Your task to perform on an android device: Open Maps and search for coffee Image 0: 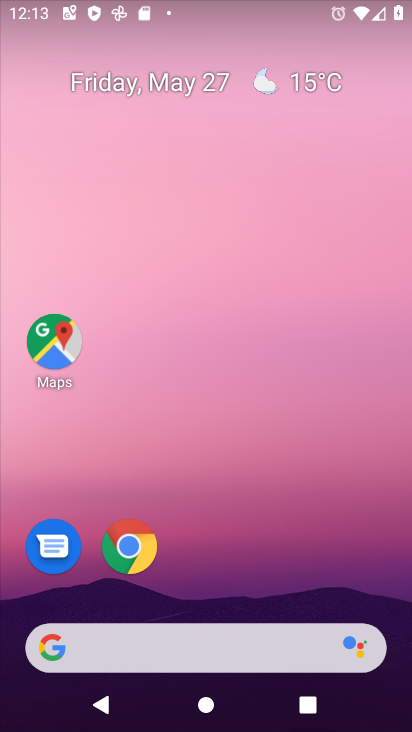
Step 0: click (58, 343)
Your task to perform on an android device: Open Maps and search for coffee Image 1: 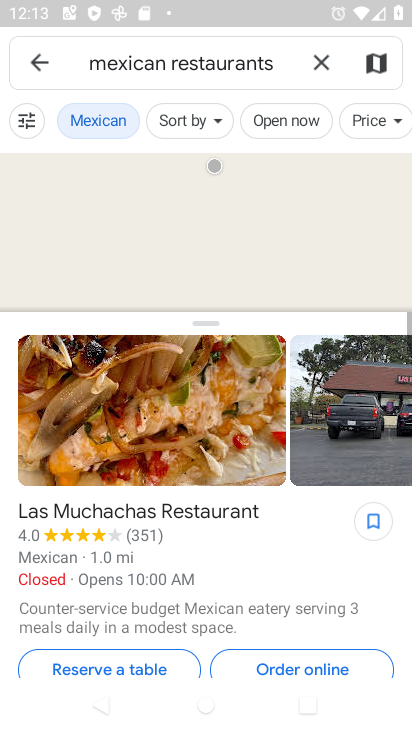
Step 1: click (317, 74)
Your task to perform on an android device: Open Maps and search for coffee Image 2: 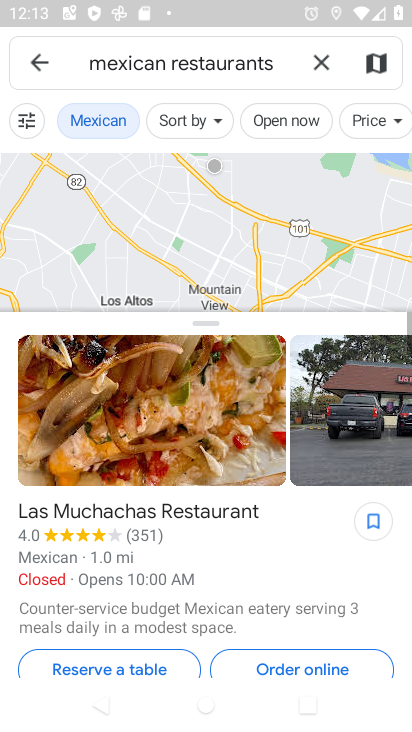
Step 2: click (316, 59)
Your task to perform on an android device: Open Maps and search for coffee Image 3: 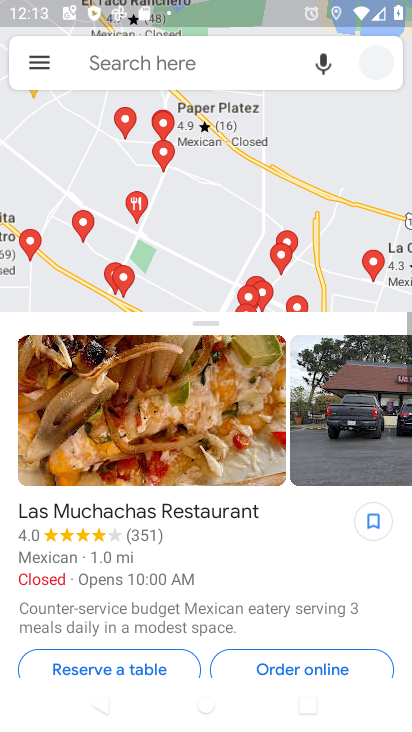
Step 3: click (215, 62)
Your task to perform on an android device: Open Maps and search for coffee Image 4: 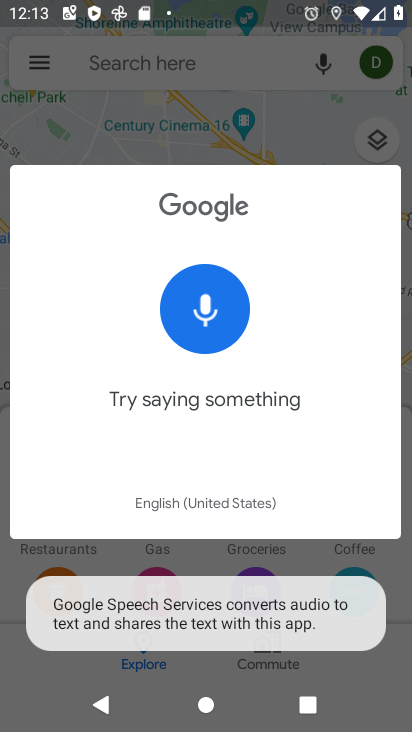
Step 4: click (196, 89)
Your task to perform on an android device: Open Maps and search for coffee Image 5: 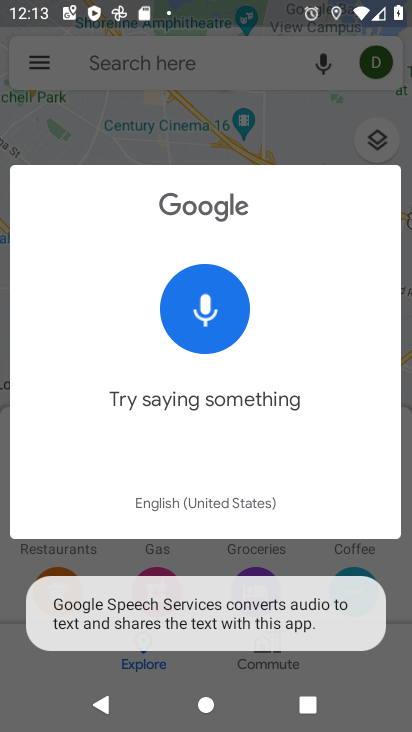
Step 5: click (197, 56)
Your task to perform on an android device: Open Maps and search for coffee Image 6: 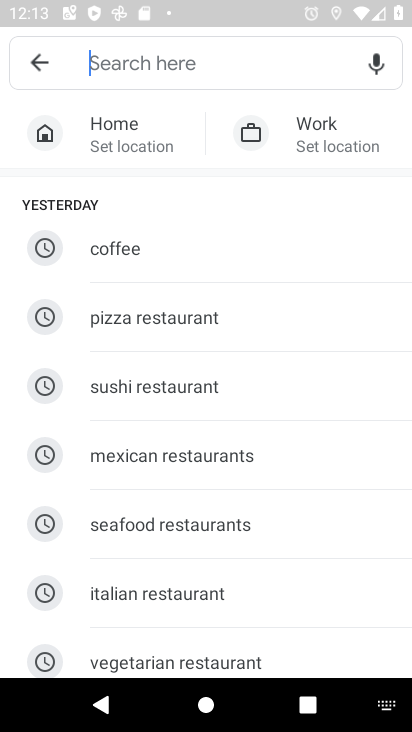
Step 6: click (134, 266)
Your task to perform on an android device: Open Maps and search for coffee Image 7: 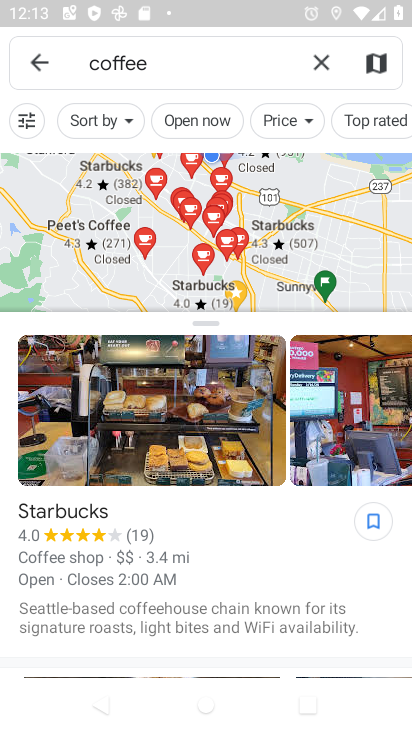
Step 7: task complete